Your task to perform on an android device: What's the news in Trinidad and Tobago? Image 0: 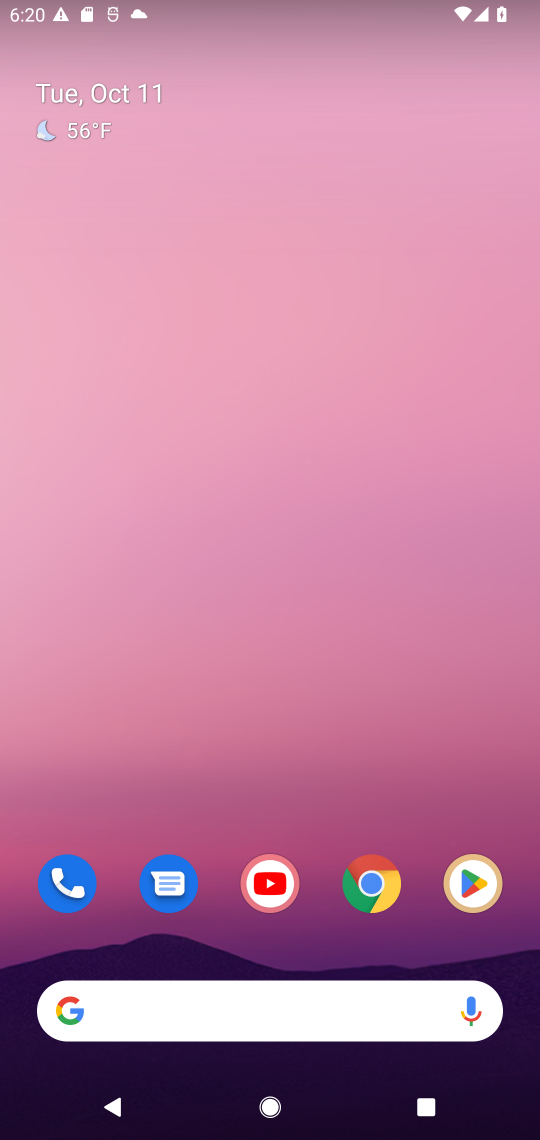
Step 0: drag from (344, 754) to (377, 191)
Your task to perform on an android device: What's the news in Trinidad and Tobago? Image 1: 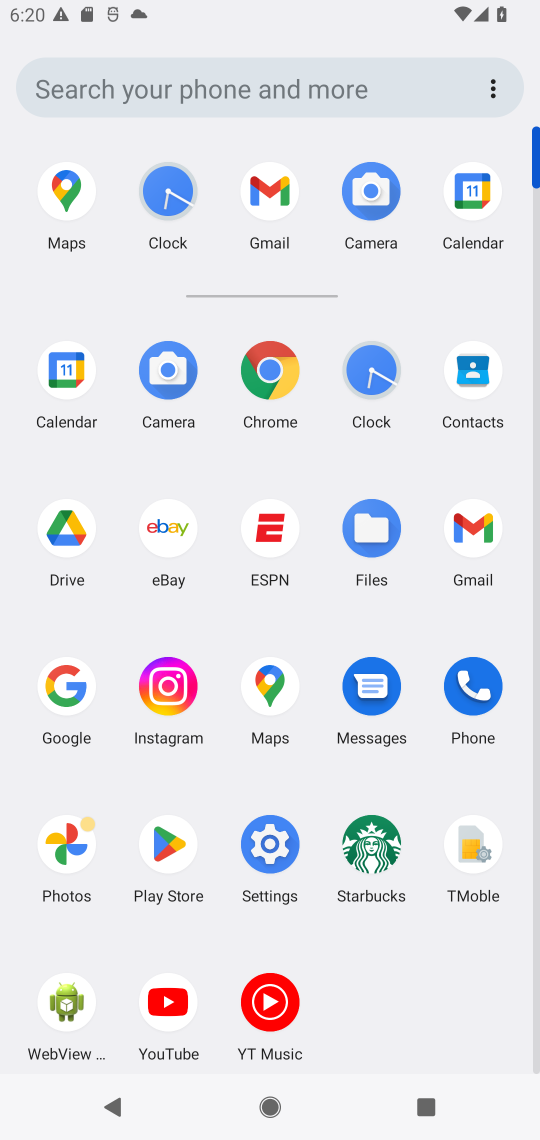
Step 1: click (274, 376)
Your task to perform on an android device: What's the news in Trinidad and Tobago? Image 2: 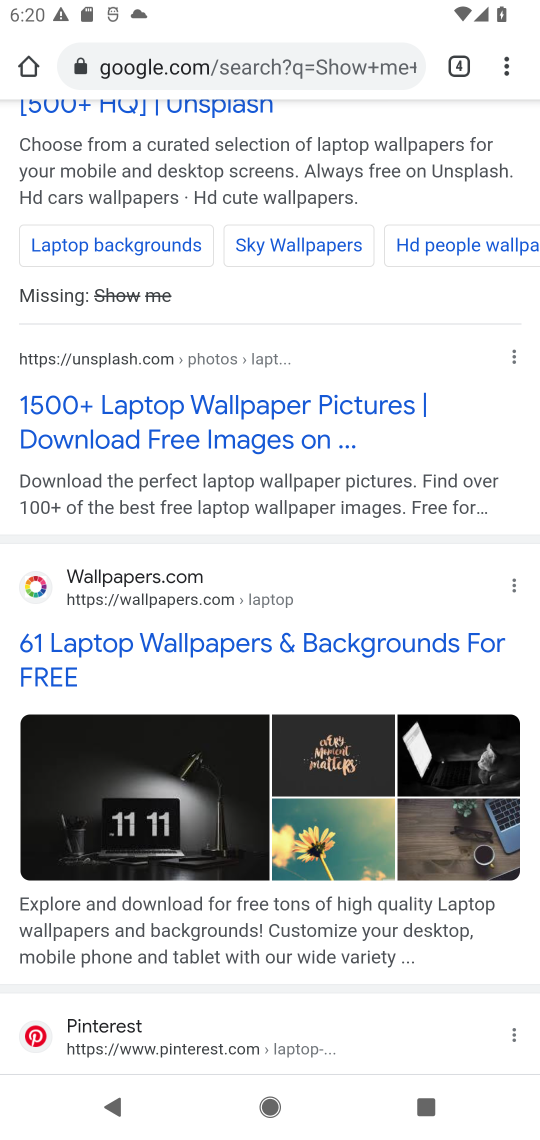
Step 2: click (278, 63)
Your task to perform on an android device: What's the news in Trinidad and Tobago? Image 3: 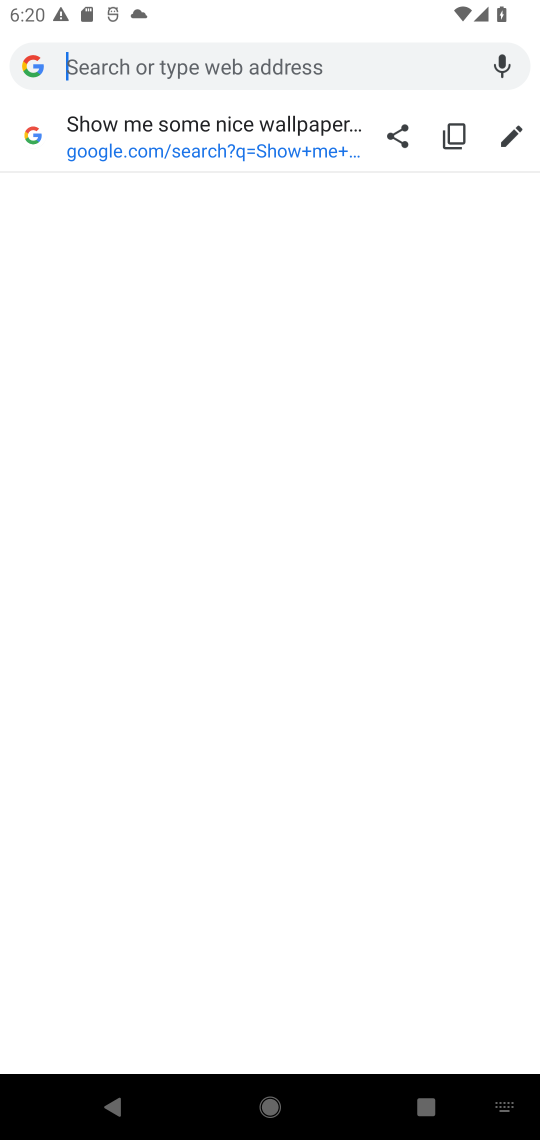
Step 3: type "What's the news in Trinidad and Tobago?"
Your task to perform on an android device: What's the news in Trinidad and Tobago? Image 4: 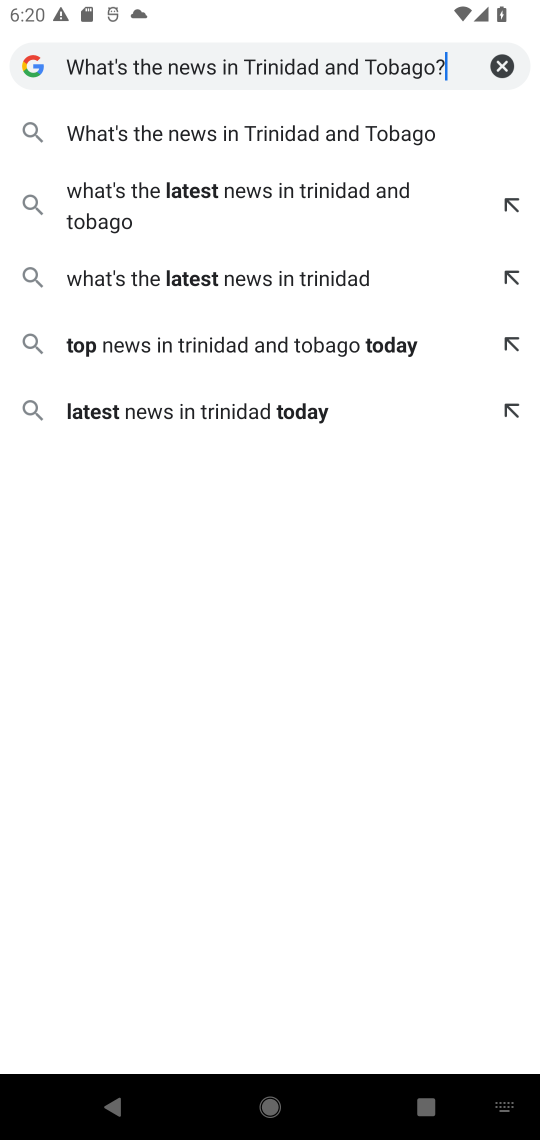
Step 4: press enter
Your task to perform on an android device: What's the news in Trinidad and Tobago? Image 5: 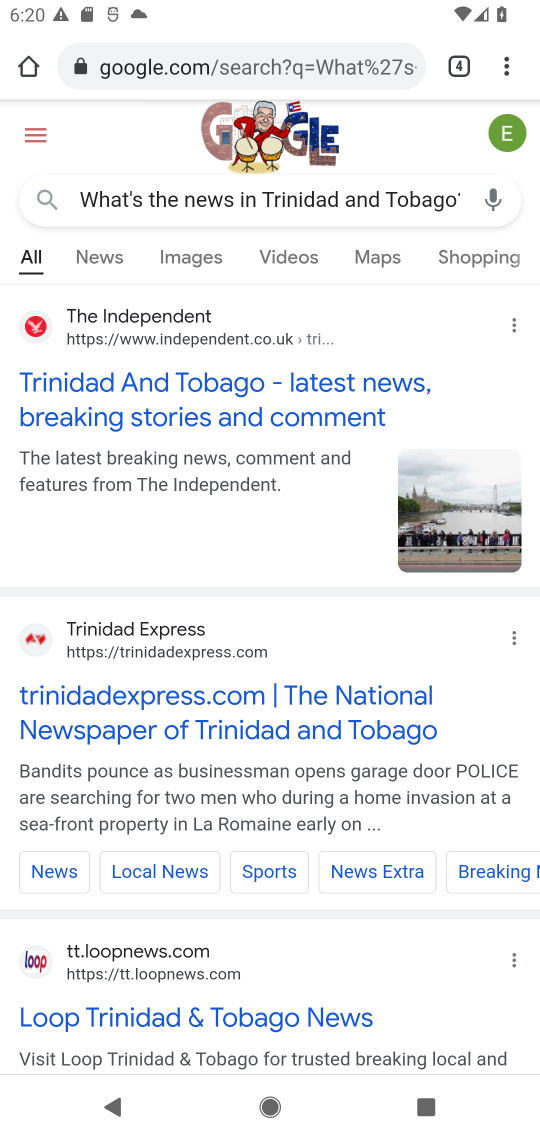
Step 5: click (283, 403)
Your task to perform on an android device: What's the news in Trinidad and Tobago? Image 6: 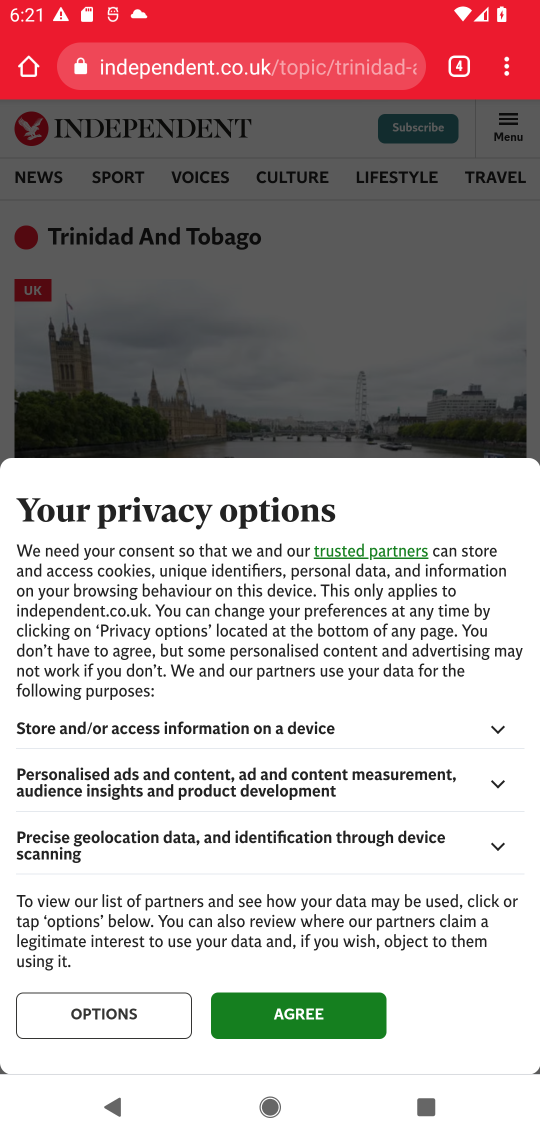
Step 6: task complete